Your task to perform on an android device: What's on my calendar today? Image 0: 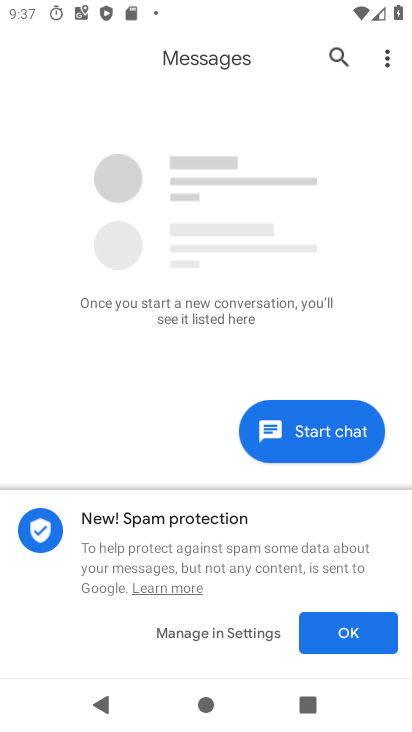
Step 0: press home button
Your task to perform on an android device: What's on my calendar today? Image 1: 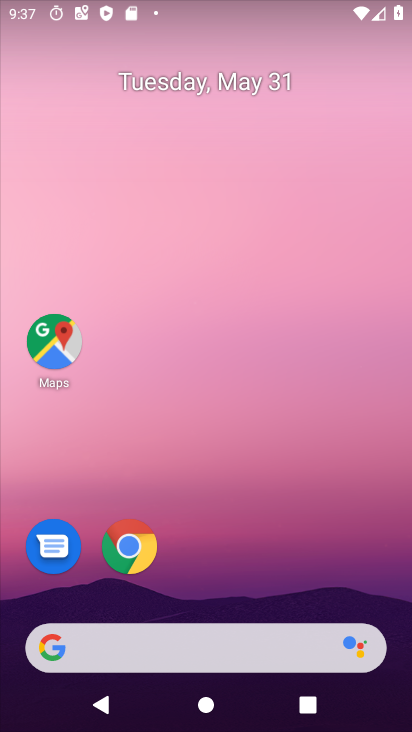
Step 1: click (235, 80)
Your task to perform on an android device: What's on my calendar today? Image 2: 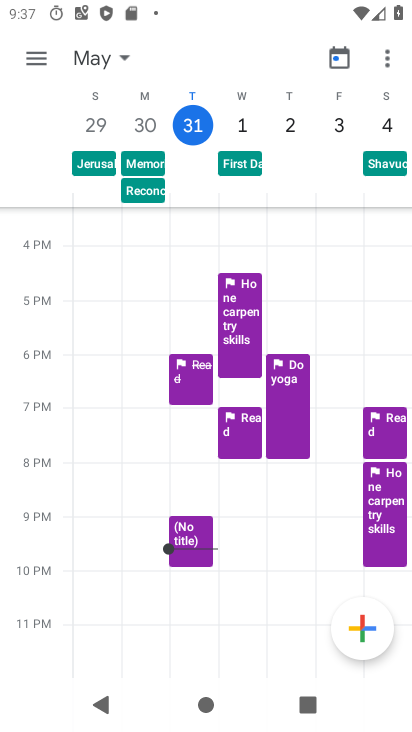
Step 2: click (40, 53)
Your task to perform on an android device: What's on my calendar today? Image 3: 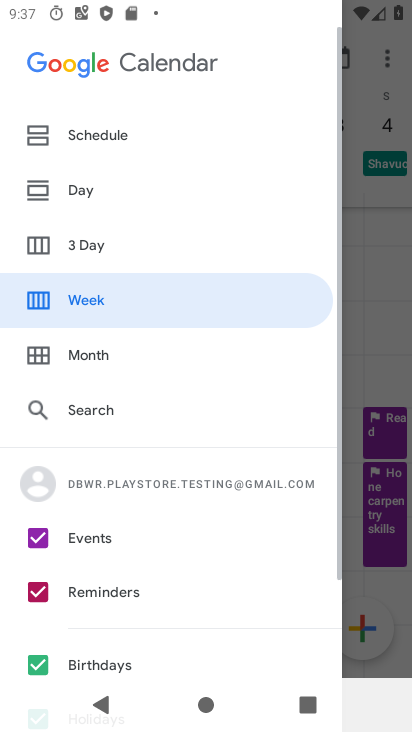
Step 3: click (105, 130)
Your task to perform on an android device: What's on my calendar today? Image 4: 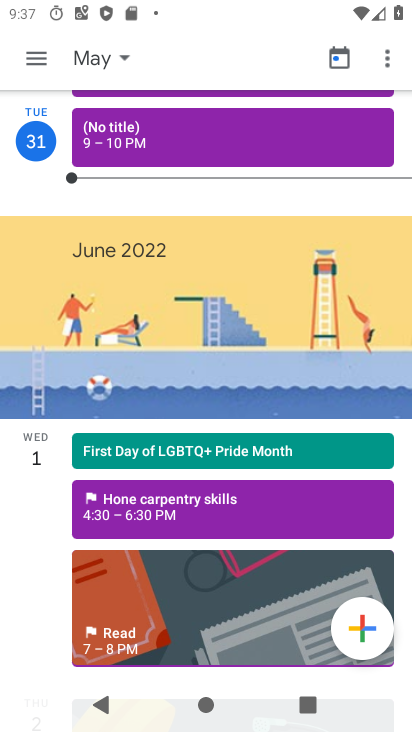
Step 4: task complete